Your task to perform on an android device: turn notification dots off Image 0: 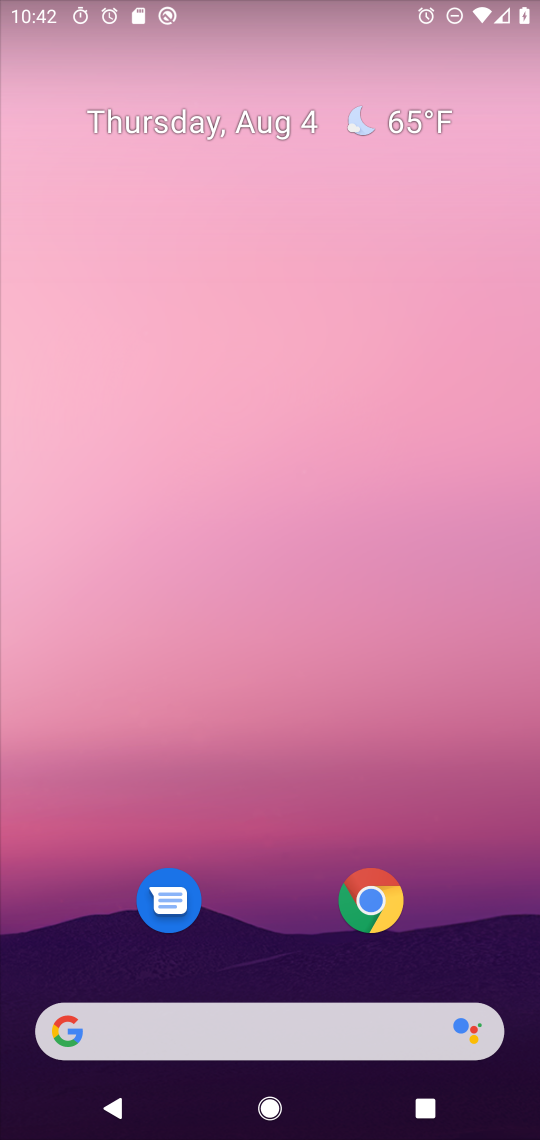
Step 0: drag from (234, 1043) to (296, 161)
Your task to perform on an android device: turn notification dots off Image 1: 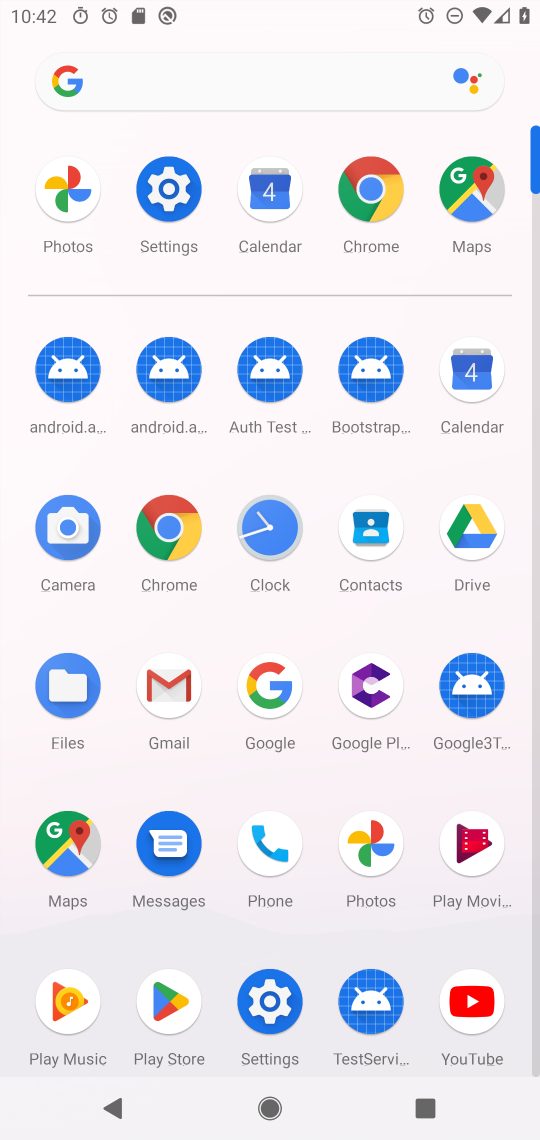
Step 1: click (169, 189)
Your task to perform on an android device: turn notification dots off Image 2: 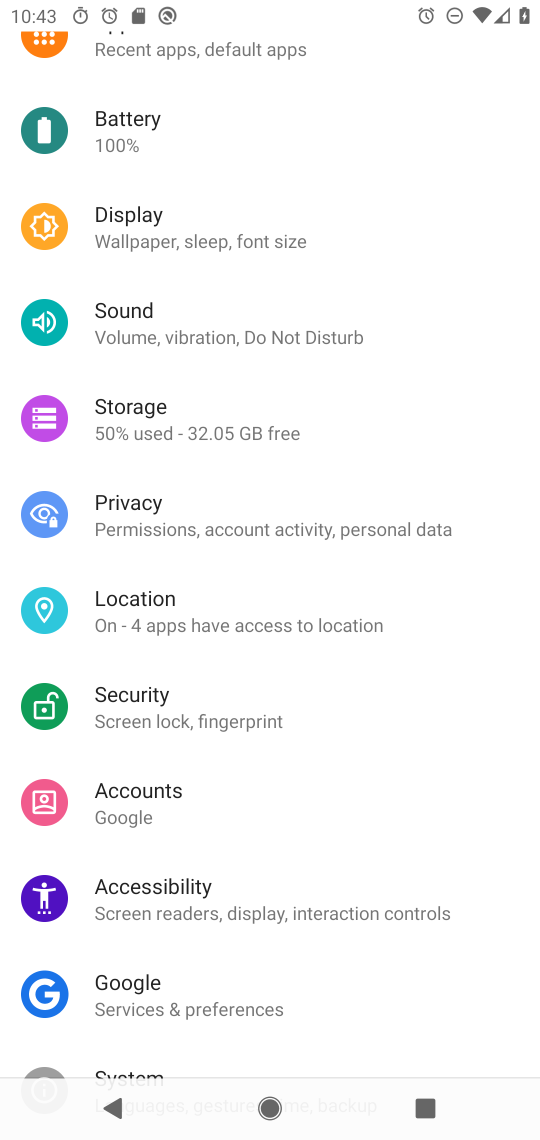
Step 2: drag from (169, 189) to (227, 625)
Your task to perform on an android device: turn notification dots off Image 3: 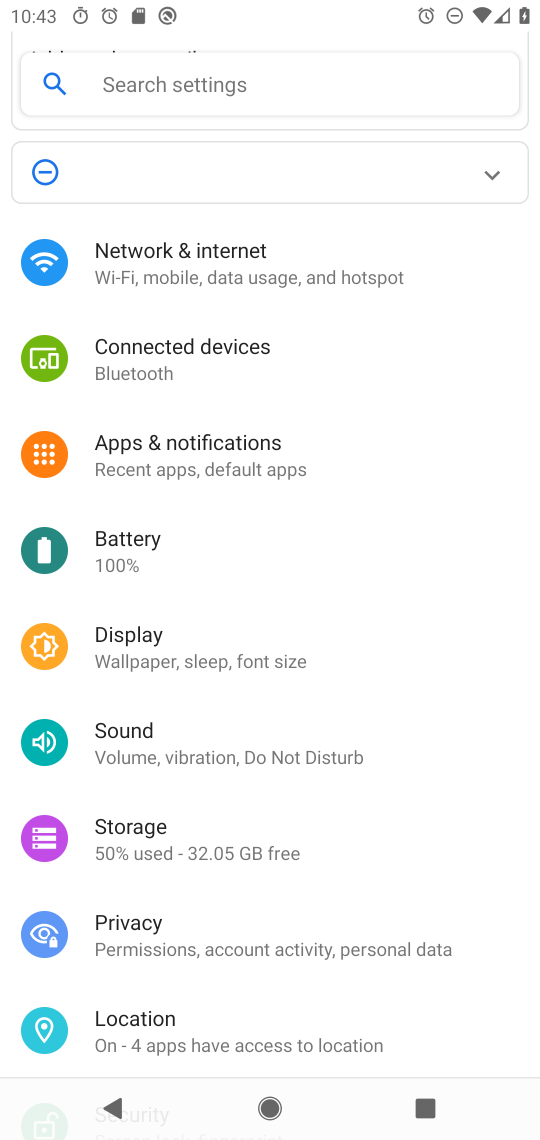
Step 3: click (204, 450)
Your task to perform on an android device: turn notification dots off Image 4: 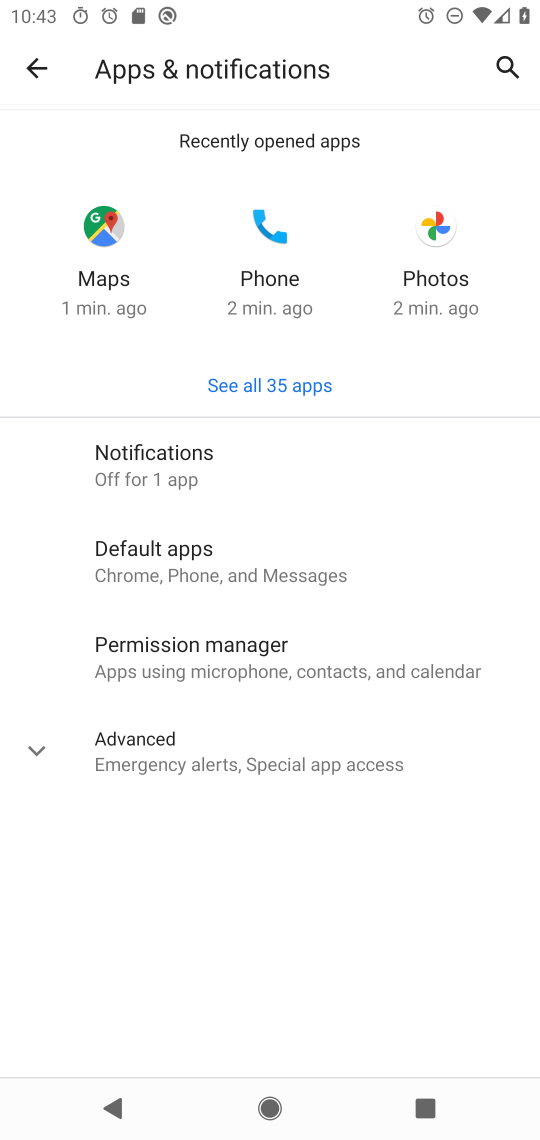
Step 4: click (190, 458)
Your task to perform on an android device: turn notification dots off Image 5: 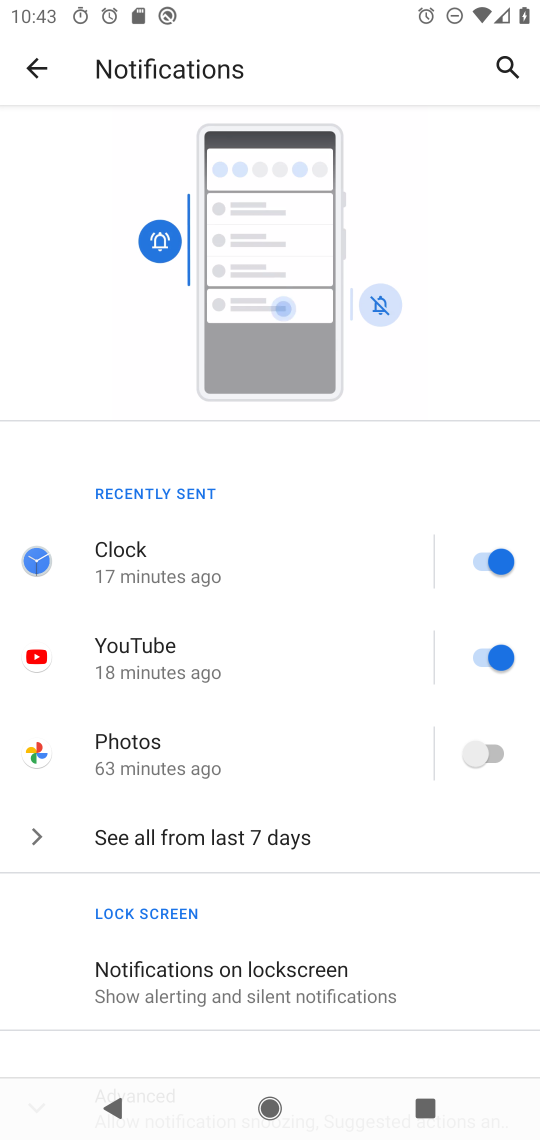
Step 5: drag from (231, 941) to (255, 696)
Your task to perform on an android device: turn notification dots off Image 6: 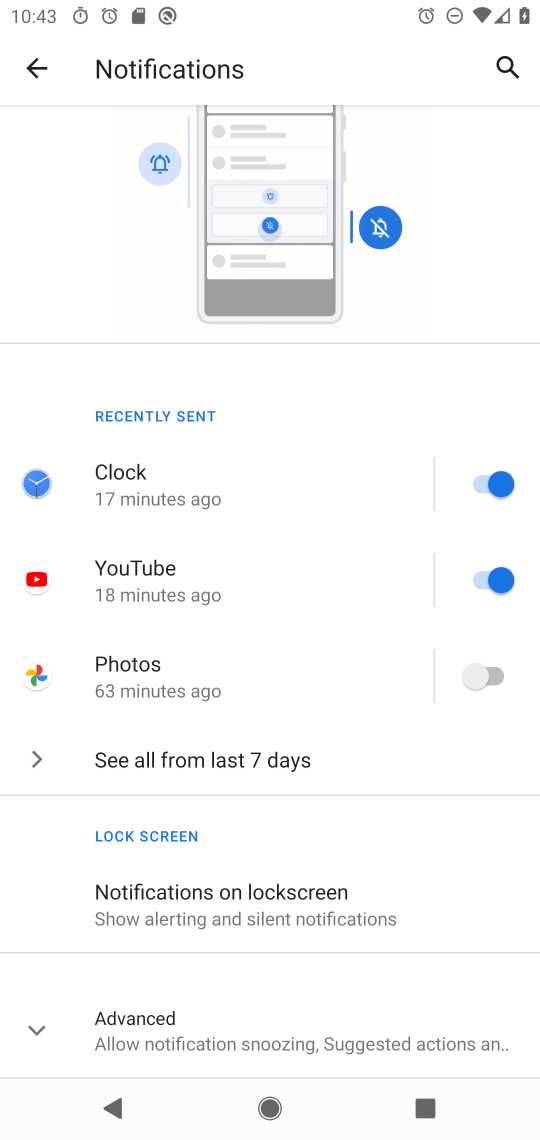
Step 6: click (282, 1045)
Your task to perform on an android device: turn notification dots off Image 7: 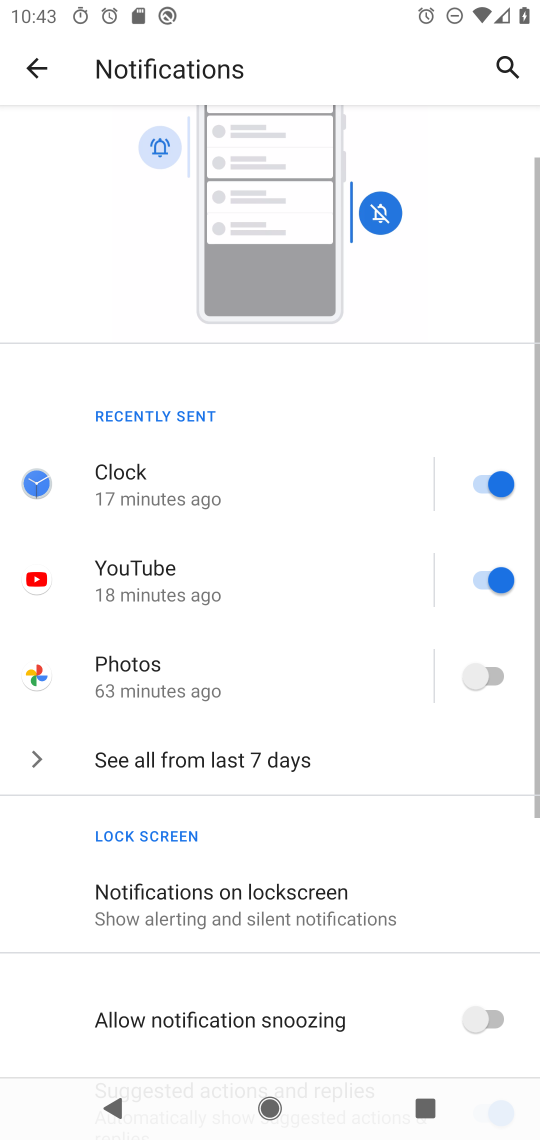
Step 7: task complete